Your task to perform on an android device: delete location history Image 0: 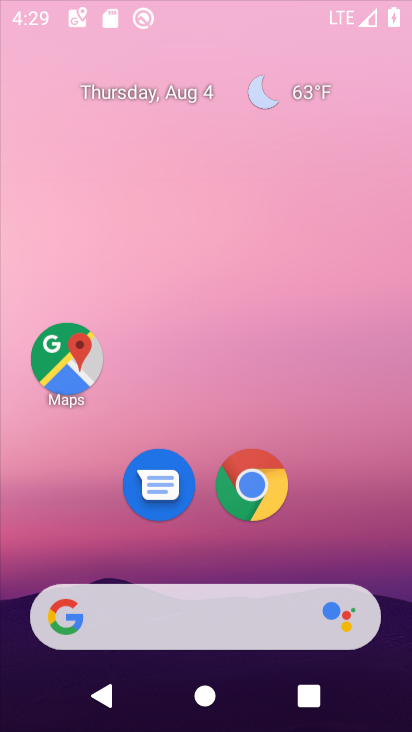
Step 0: click (333, 17)
Your task to perform on an android device: delete location history Image 1: 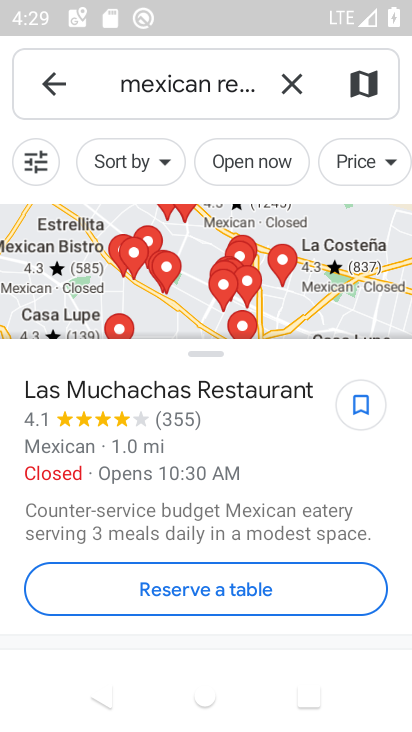
Step 1: press back button
Your task to perform on an android device: delete location history Image 2: 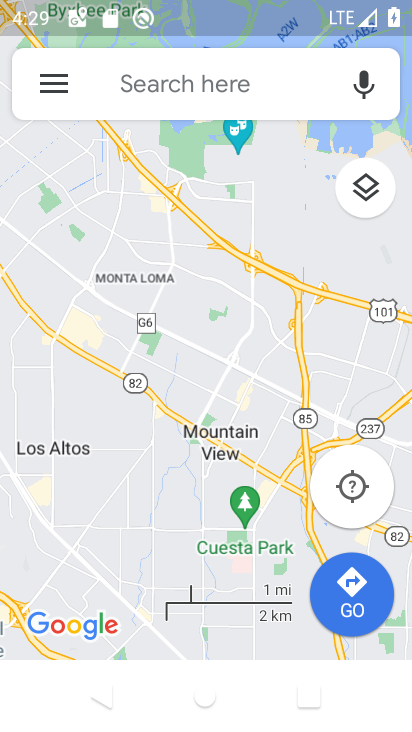
Step 2: press back button
Your task to perform on an android device: delete location history Image 3: 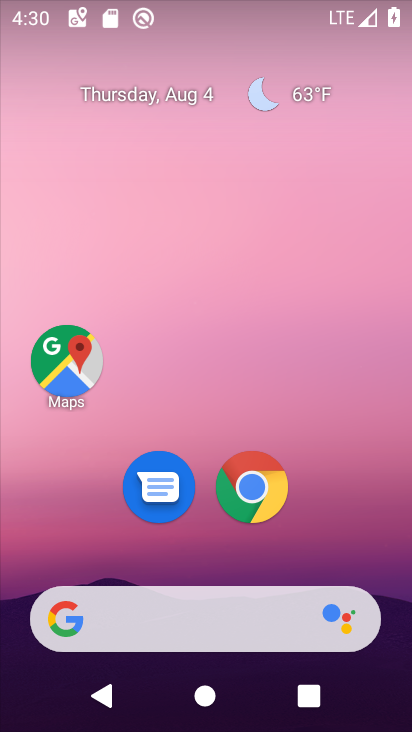
Step 3: click (47, 363)
Your task to perform on an android device: delete location history Image 4: 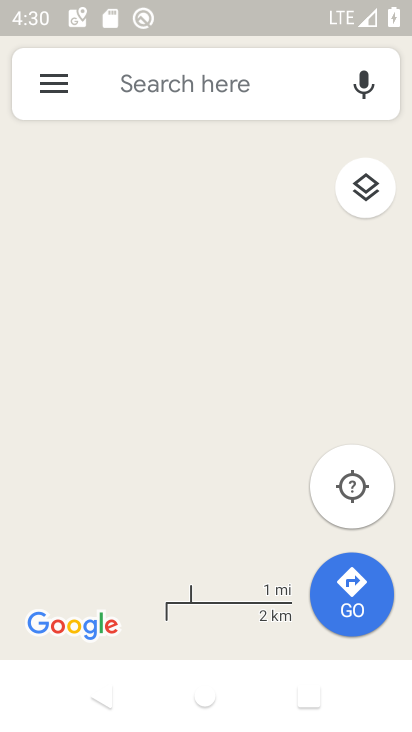
Step 4: click (56, 84)
Your task to perform on an android device: delete location history Image 5: 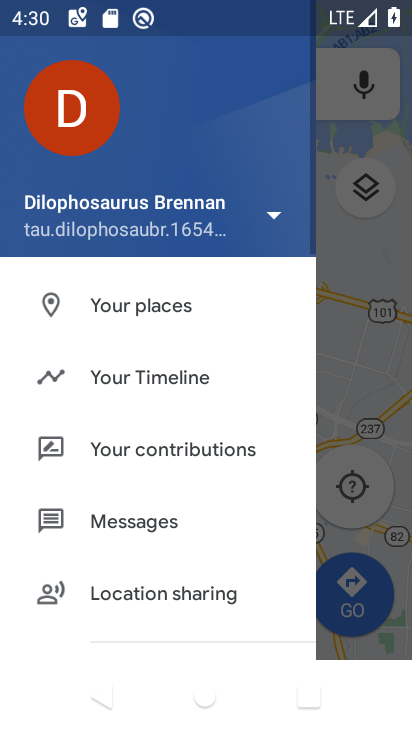
Step 5: click (184, 367)
Your task to perform on an android device: delete location history Image 6: 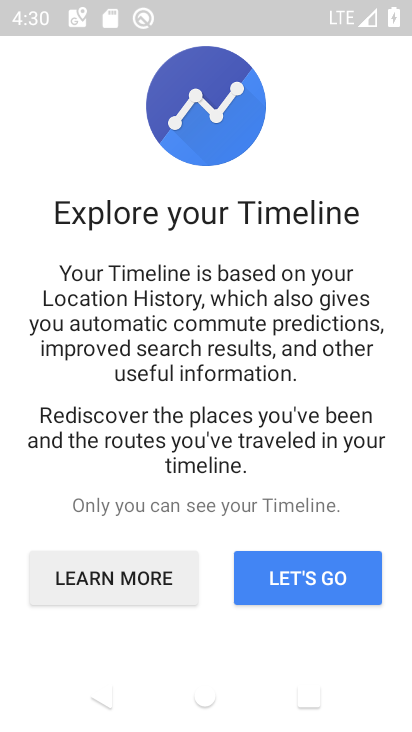
Step 6: drag from (255, 531) to (318, 3)
Your task to perform on an android device: delete location history Image 7: 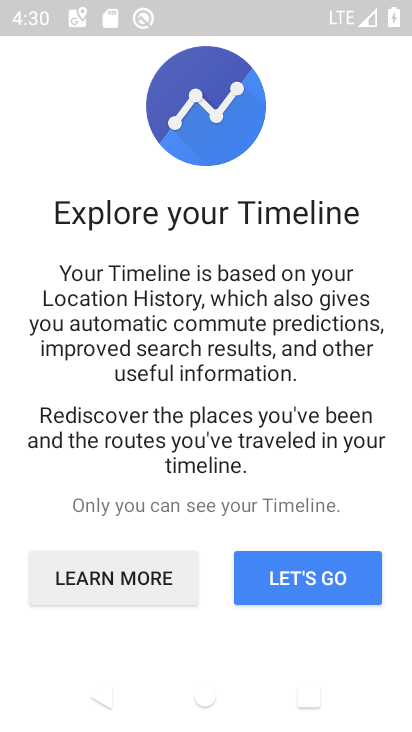
Step 7: click (286, 591)
Your task to perform on an android device: delete location history Image 8: 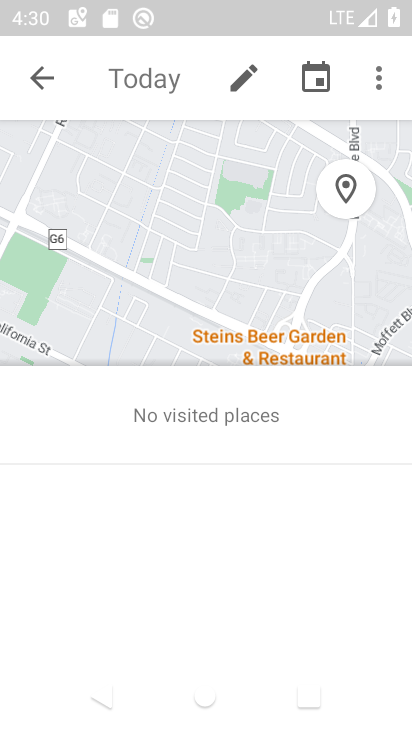
Step 8: click (370, 82)
Your task to perform on an android device: delete location history Image 9: 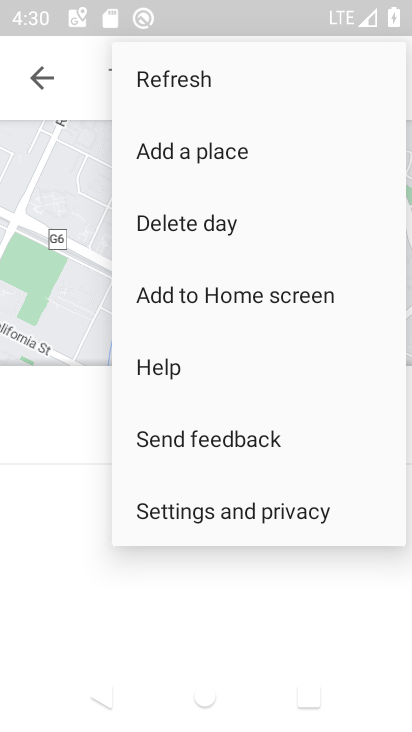
Step 9: click (198, 511)
Your task to perform on an android device: delete location history Image 10: 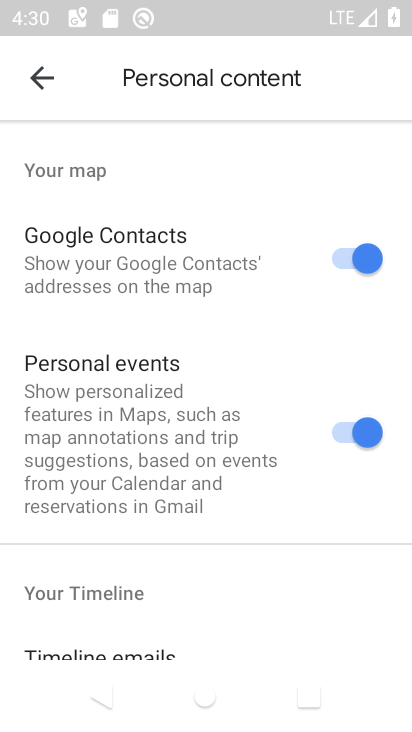
Step 10: drag from (263, 595) to (344, 51)
Your task to perform on an android device: delete location history Image 11: 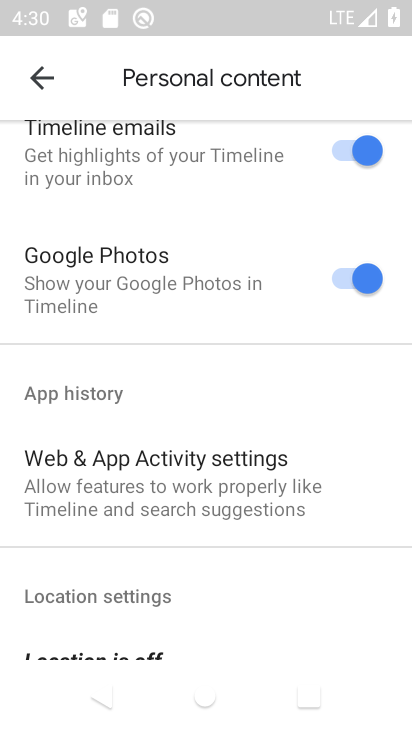
Step 11: drag from (190, 144) to (197, 709)
Your task to perform on an android device: delete location history Image 12: 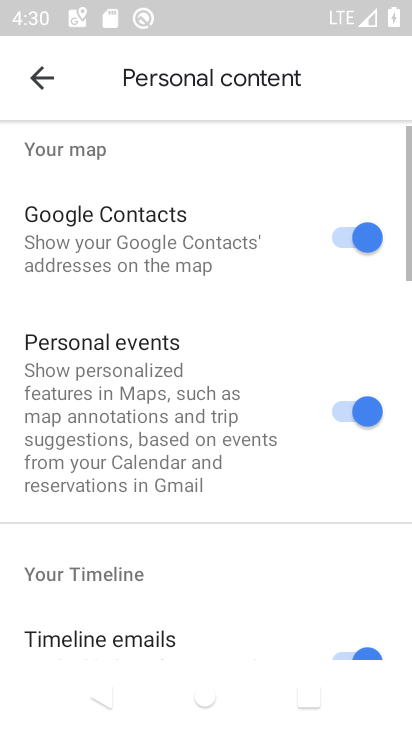
Step 12: drag from (172, 224) to (200, 41)
Your task to perform on an android device: delete location history Image 13: 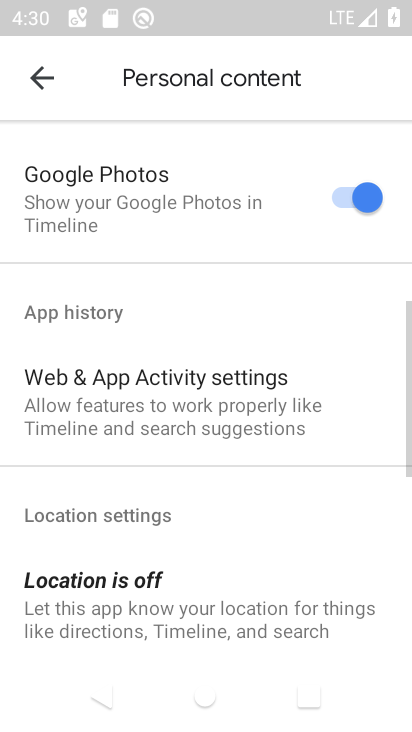
Step 13: drag from (145, 511) to (227, 123)
Your task to perform on an android device: delete location history Image 14: 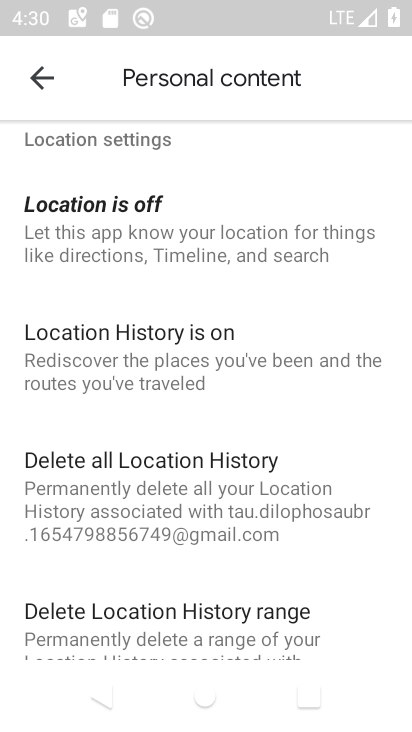
Step 14: click (168, 494)
Your task to perform on an android device: delete location history Image 15: 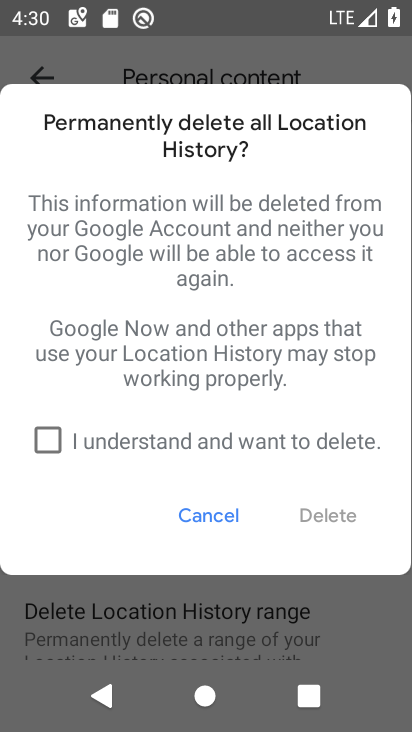
Step 15: click (101, 444)
Your task to perform on an android device: delete location history Image 16: 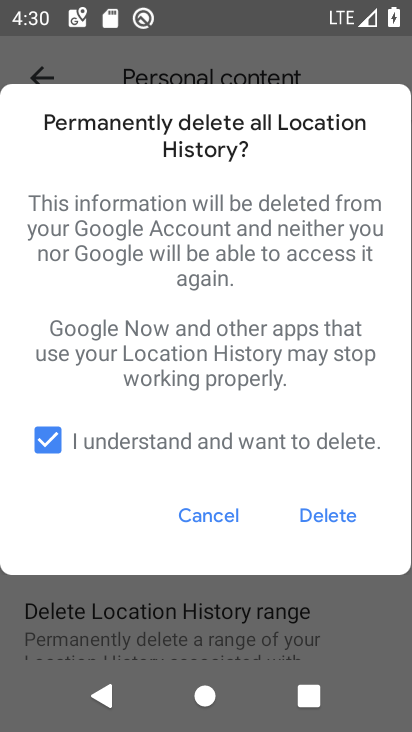
Step 16: click (338, 514)
Your task to perform on an android device: delete location history Image 17: 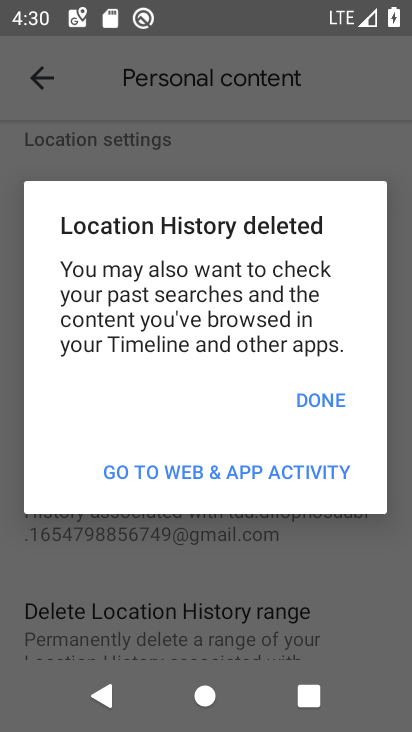
Step 17: click (315, 401)
Your task to perform on an android device: delete location history Image 18: 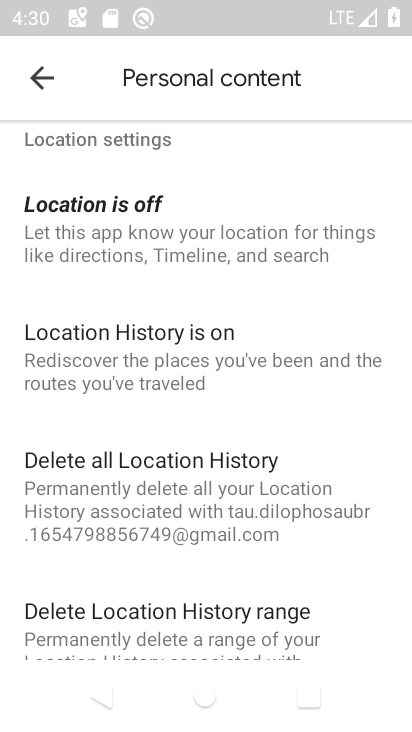
Step 18: task complete